Your task to perform on an android device: add a contact Image 0: 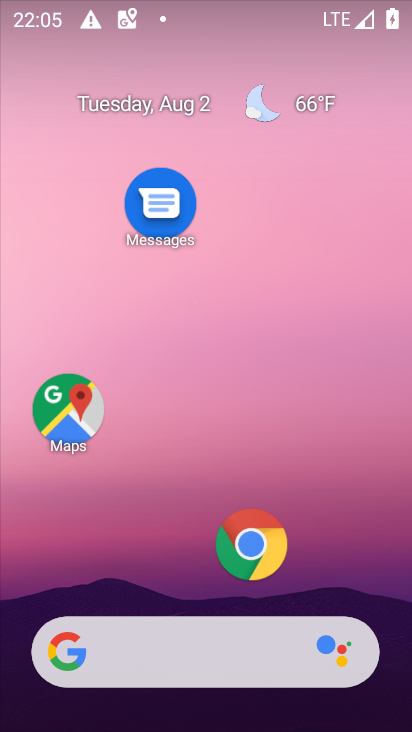
Step 0: drag from (195, 566) to (195, 166)
Your task to perform on an android device: add a contact Image 1: 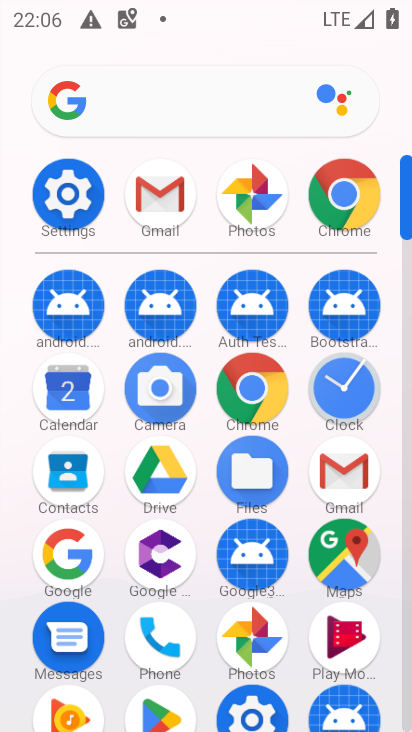
Step 1: click (54, 479)
Your task to perform on an android device: add a contact Image 2: 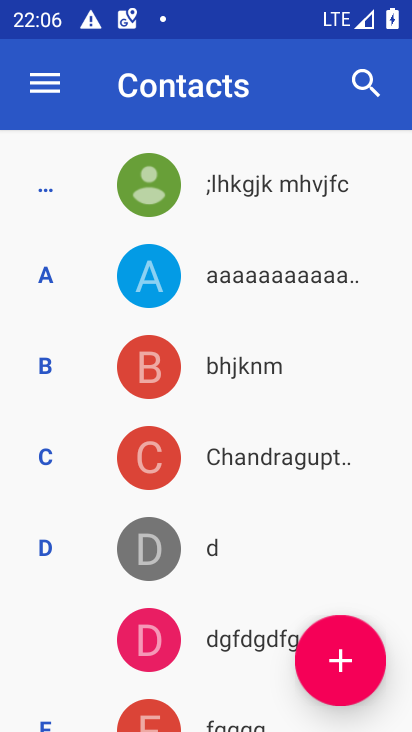
Step 2: click (336, 675)
Your task to perform on an android device: add a contact Image 3: 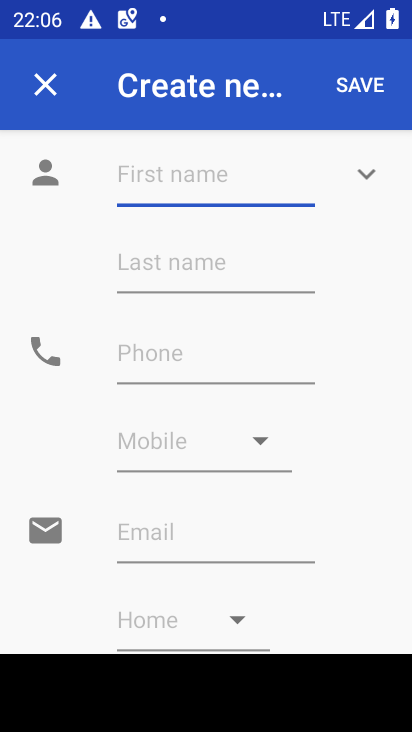
Step 3: type "fgfgh"
Your task to perform on an android device: add a contact Image 4: 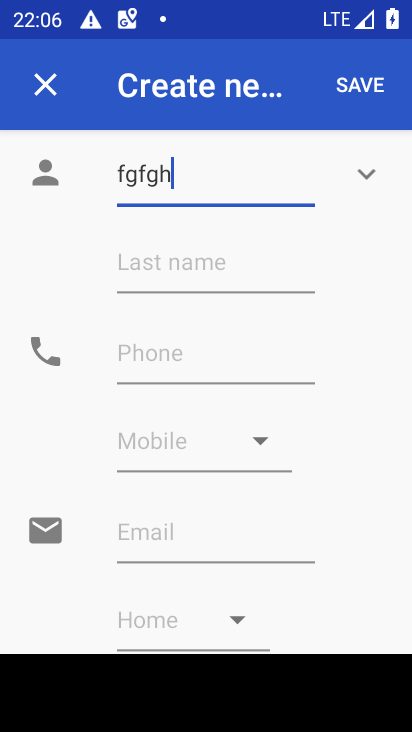
Step 4: click (167, 360)
Your task to perform on an android device: add a contact Image 5: 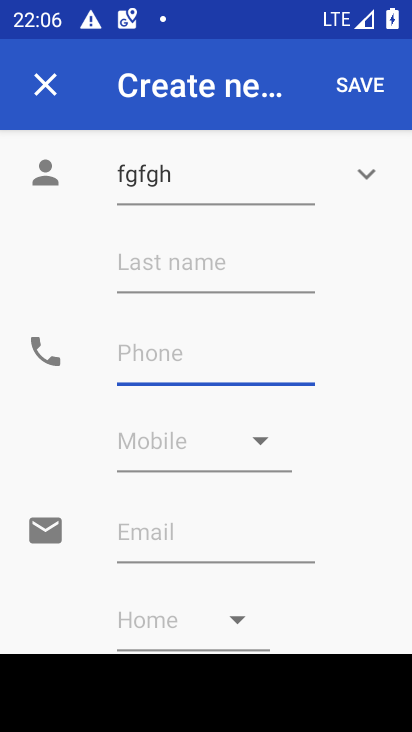
Step 5: type "867856686"
Your task to perform on an android device: add a contact Image 6: 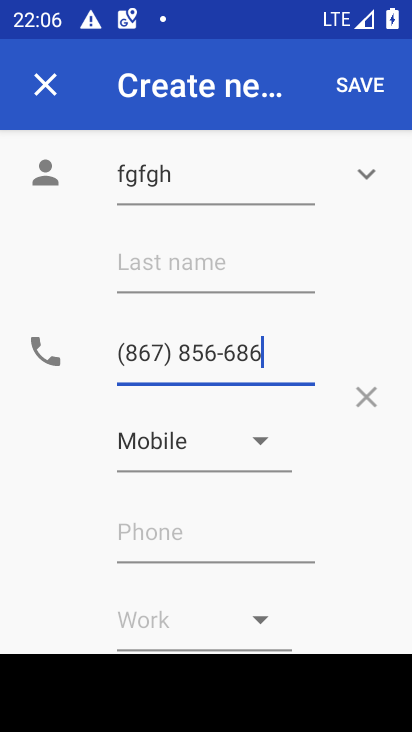
Step 6: click (346, 80)
Your task to perform on an android device: add a contact Image 7: 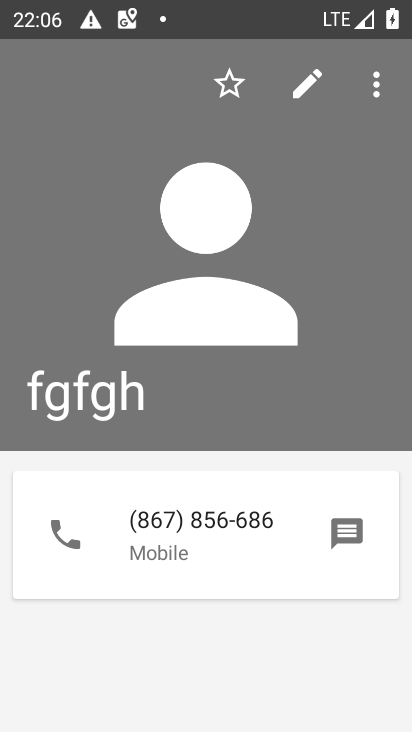
Step 7: task complete